Your task to perform on an android device: delete location history Image 0: 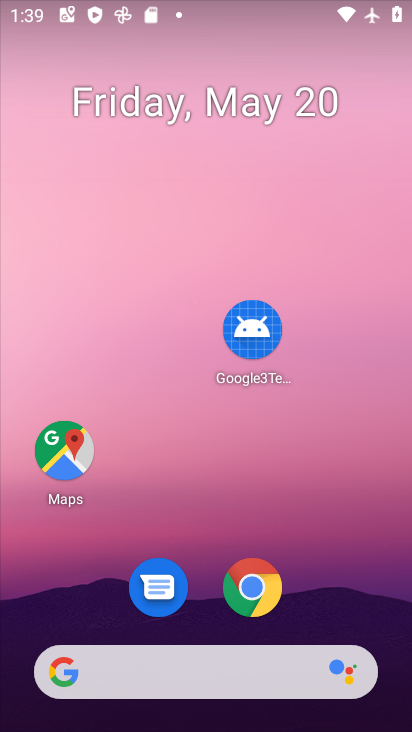
Step 0: drag from (329, 544) to (238, 40)
Your task to perform on an android device: delete location history Image 1: 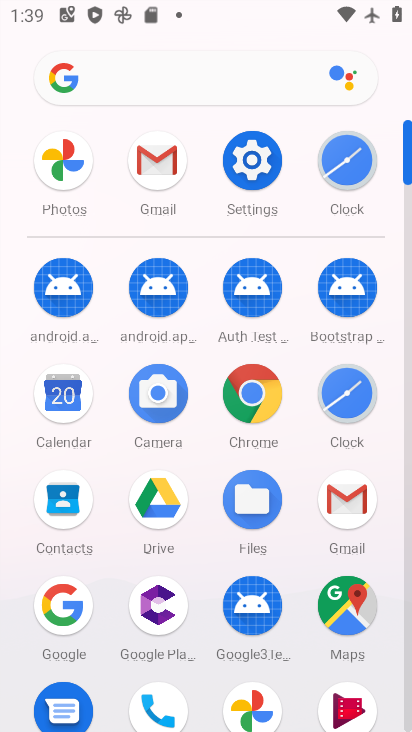
Step 1: click (334, 616)
Your task to perform on an android device: delete location history Image 2: 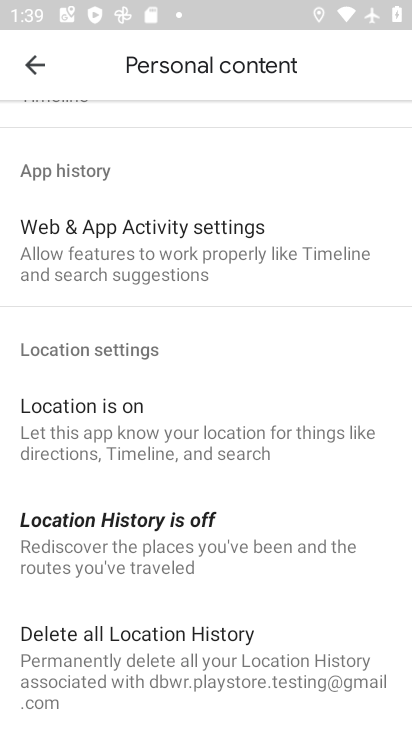
Step 2: click (150, 629)
Your task to perform on an android device: delete location history Image 3: 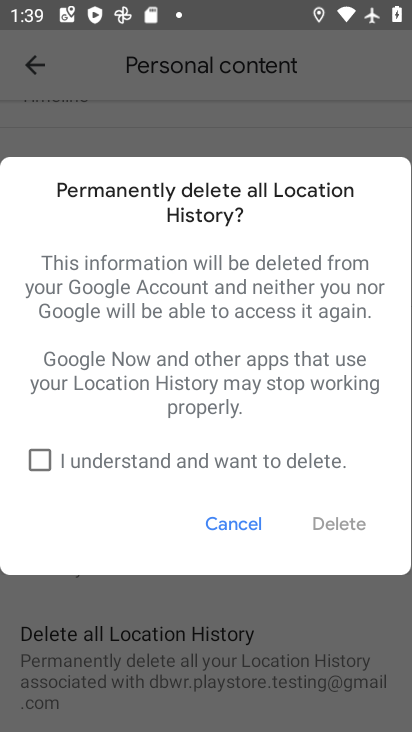
Step 3: click (39, 457)
Your task to perform on an android device: delete location history Image 4: 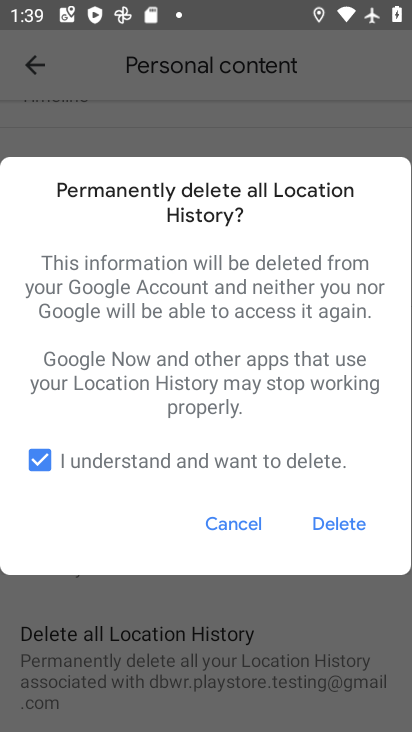
Step 4: click (352, 522)
Your task to perform on an android device: delete location history Image 5: 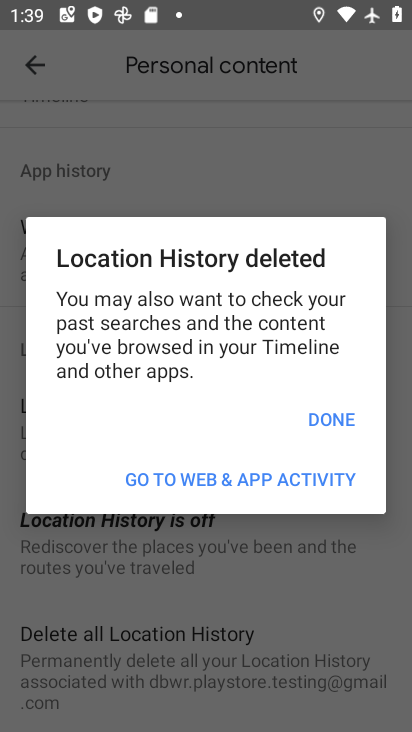
Step 5: click (335, 419)
Your task to perform on an android device: delete location history Image 6: 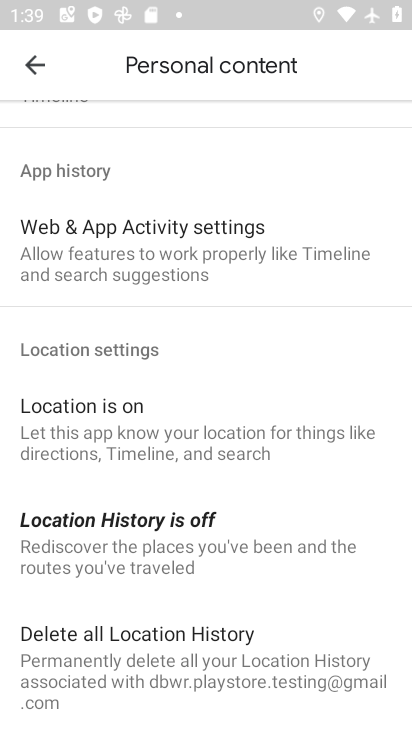
Step 6: task complete